Your task to perform on an android device: View the shopping cart on newegg. Search for "jbl flip 4" on newegg, select the first entry, add it to the cart, then select checkout. Image 0: 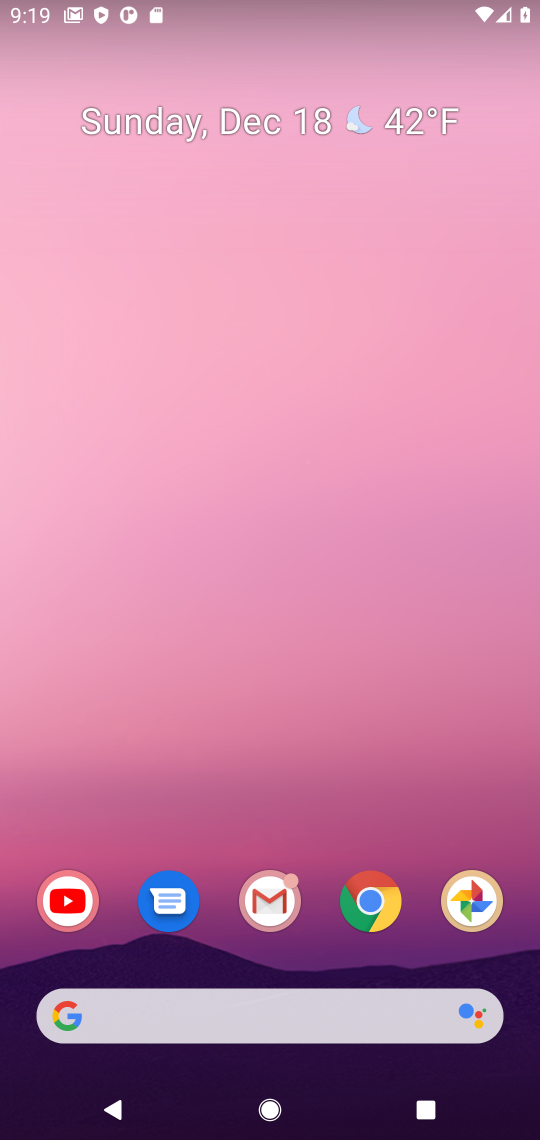
Step 0: click (364, 894)
Your task to perform on an android device: View the shopping cart on newegg. Search for "jbl flip 4" on newegg, select the first entry, add it to the cart, then select checkout. Image 1: 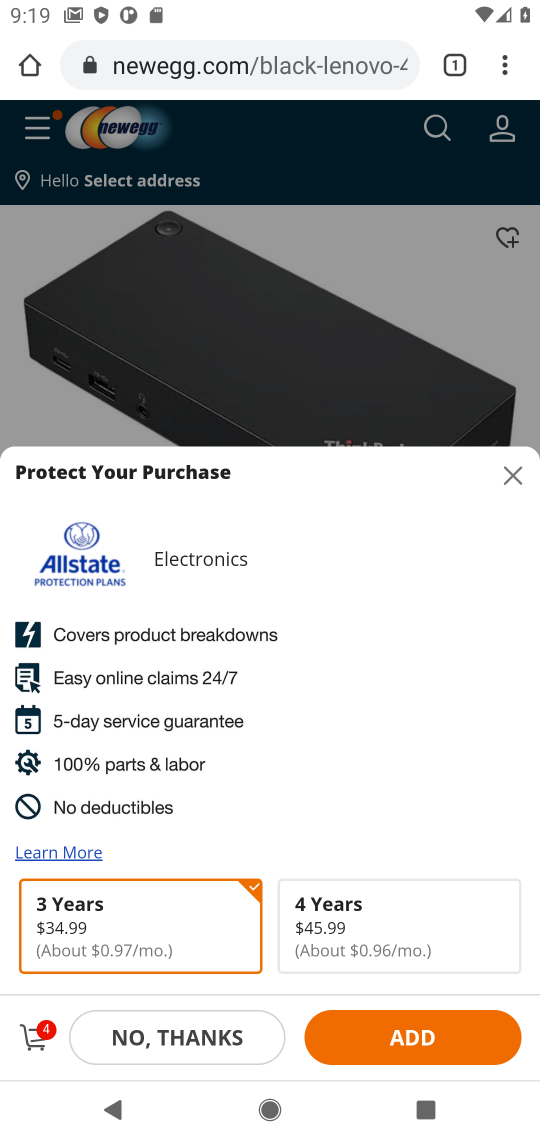
Step 1: click (156, 1040)
Your task to perform on an android device: View the shopping cart on newegg. Search for "jbl flip 4" on newegg, select the first entry, add it to the cart, then select checkout. Image 2: 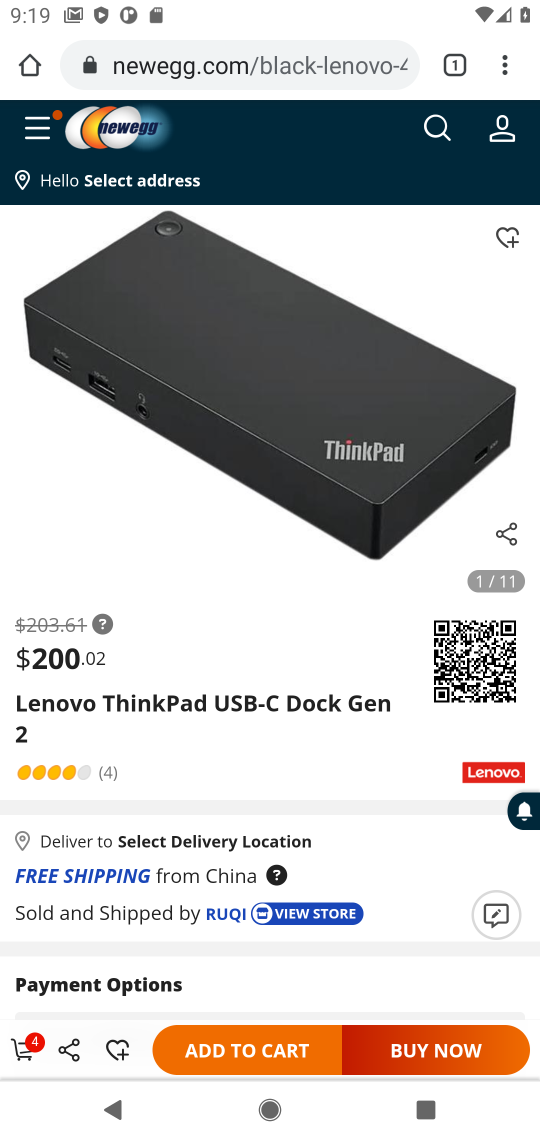
Step 2: click (424, 140)
Your task to perform on an android device: View the shopping cart on newegg. Search for "jbl flip 4" on newegg, select the first entry, add it to the cart, then select checkout. Image 3: 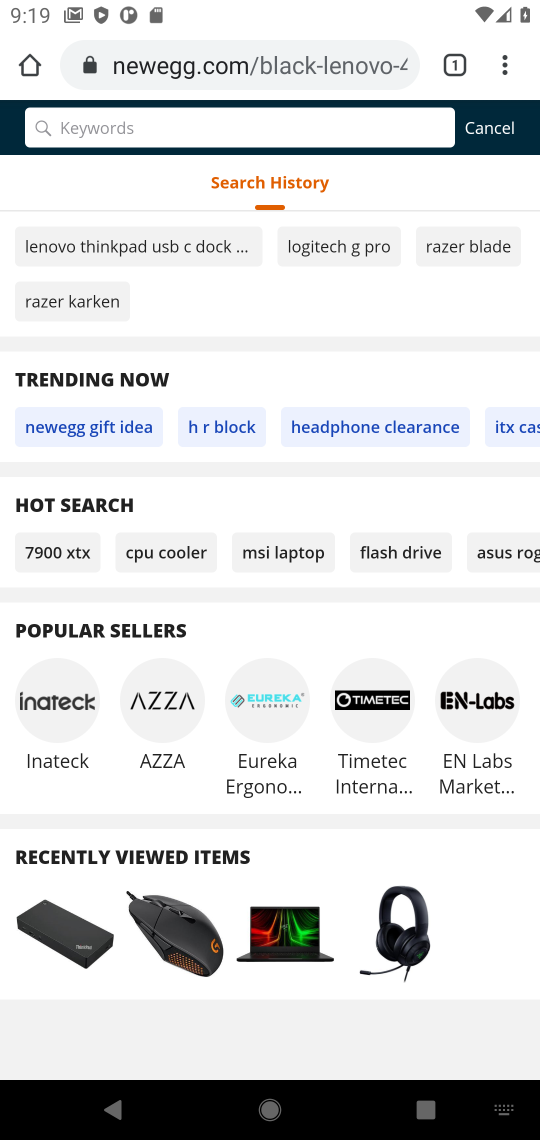
Step 3: type "jbl flip 4"
Your task to perform on an android device: View the shopping cart on newegg. Search for "jbl flip 4" on newegg, select the first entry, add it to the cart, then select checkout. Image 4: 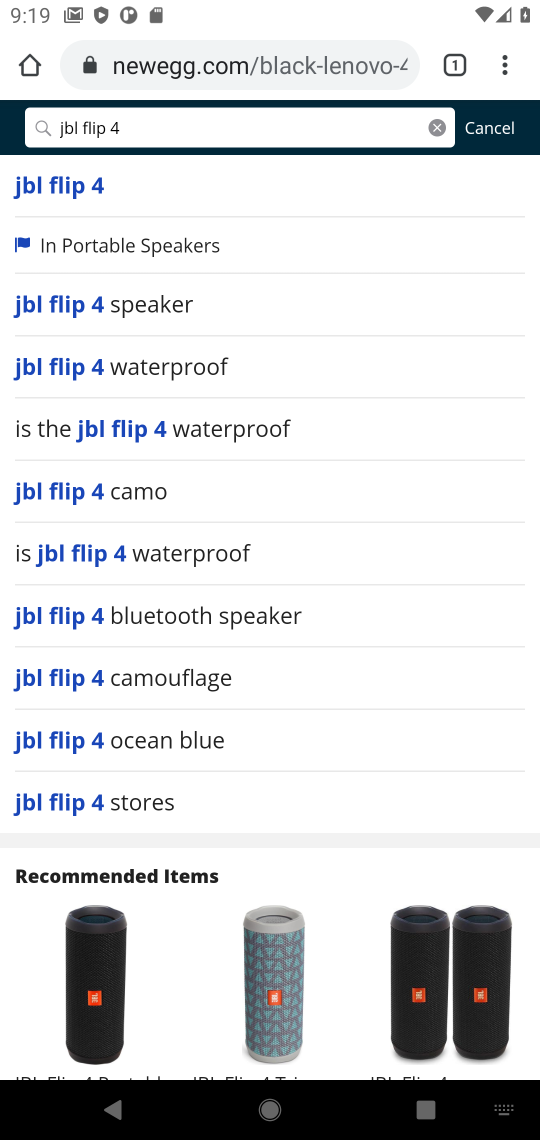
Step 4: click (101, 202)
Your task to perform on an android device: View the shopping cart on newegg. Search for "jbl flip 4" on newegg, select the first entry, add it to the cart, then select checkout. Image 5: 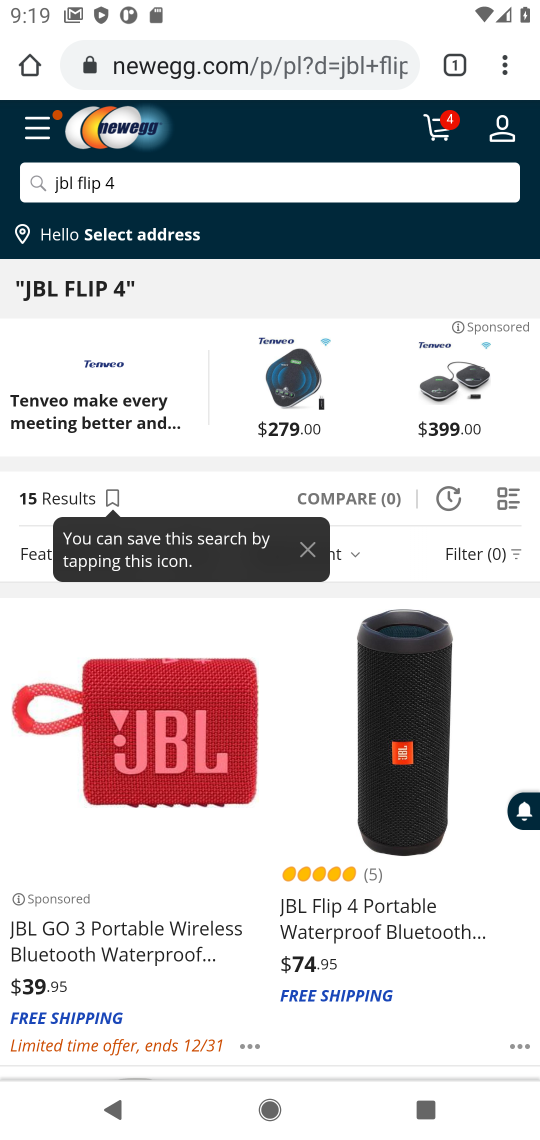
Step 5: click (137, 665)
Your task to perform on an android device: View the shopping cart on newegg. Search for "jbl flip 4" on newegg, select the first entry, add it to the cart, then select checkout. Image 6: 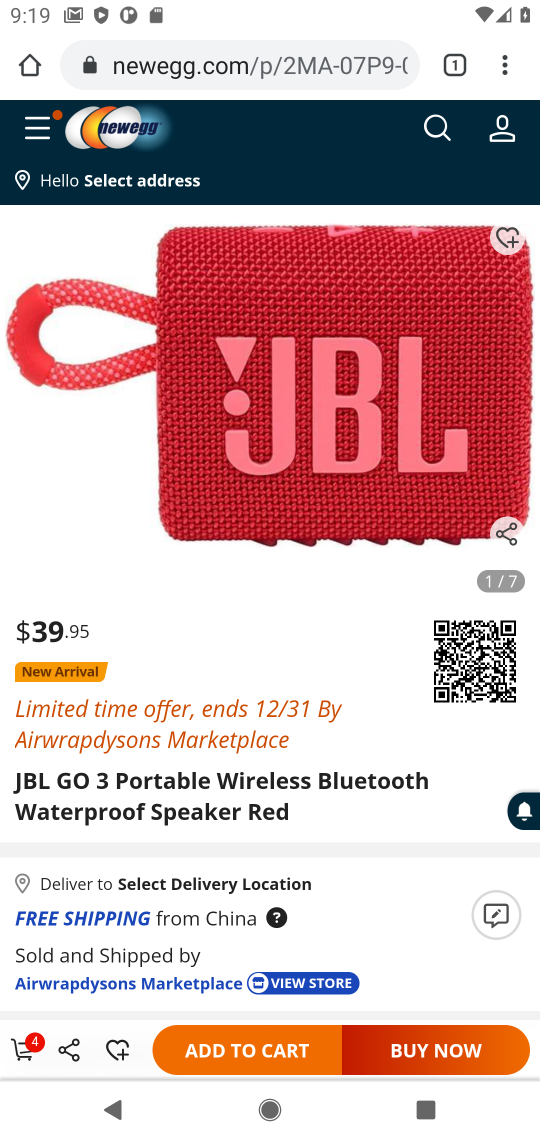
Step 6: click (218, 1058)
Your task to perform on an android device: View the shopping cart on newegg. Search for "jbl flip 4" on newegg, select the first entry, add it to the cart, then select checkout. Image 7: 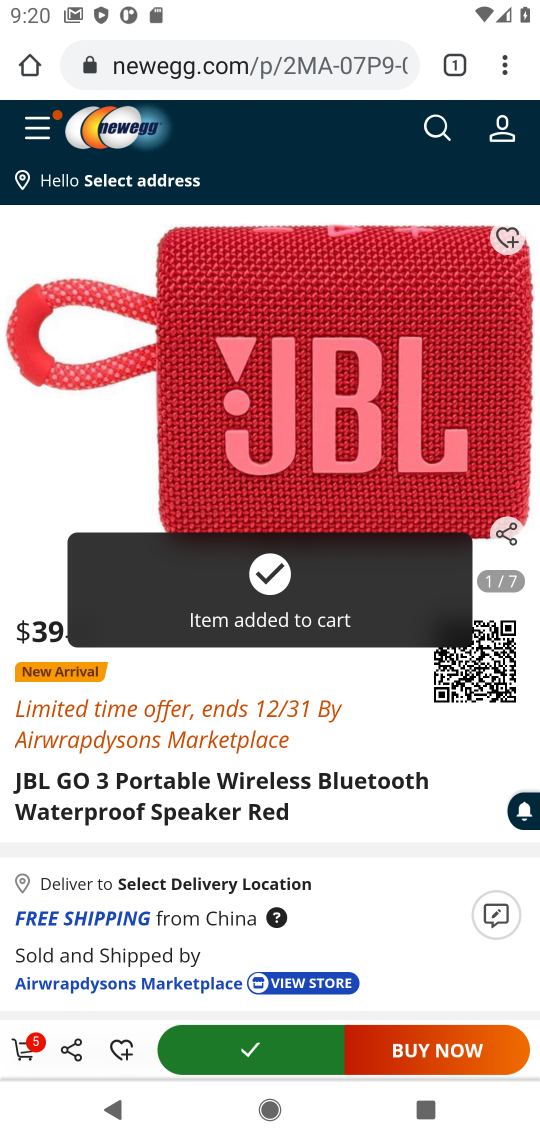
Step 7: task complete